Your task to perform on an android device: turn notification dots off Image 0: 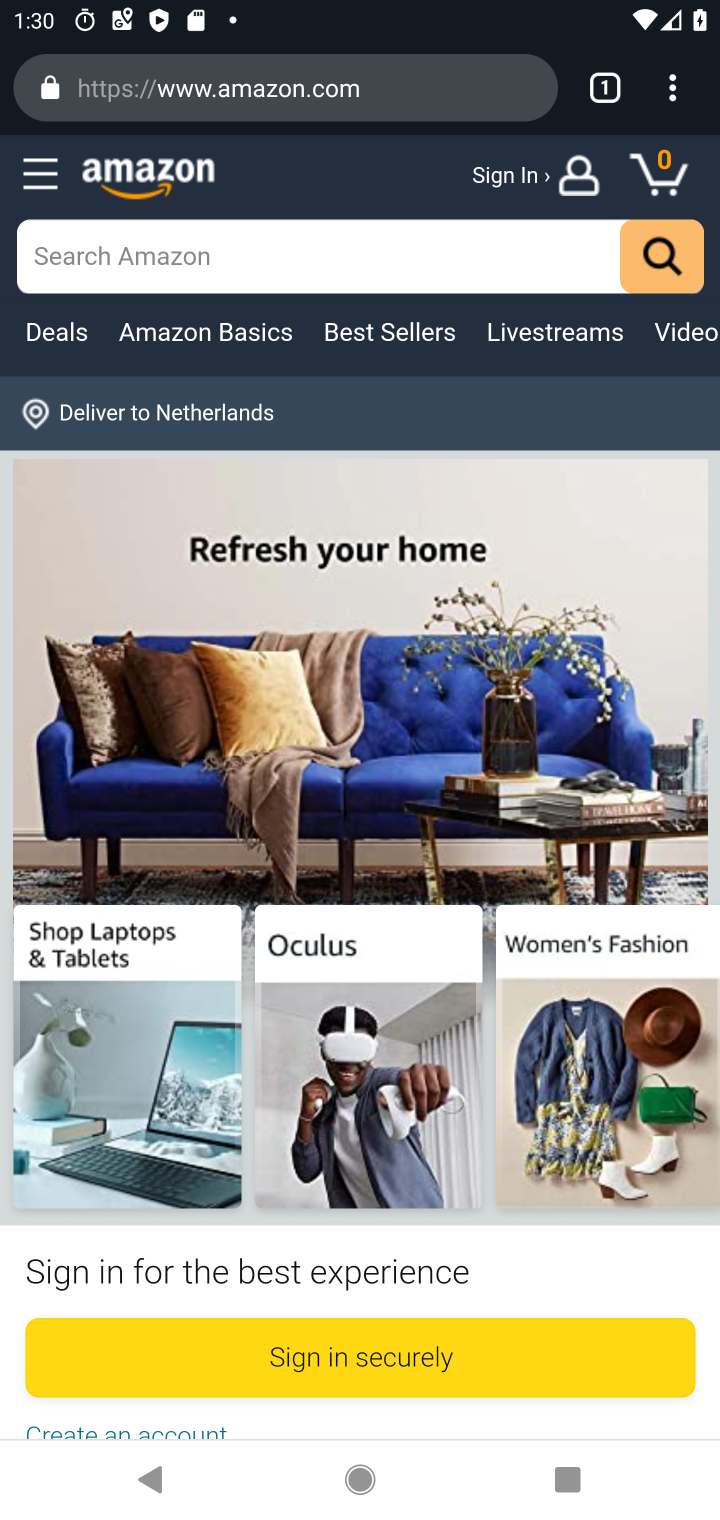
Step 0: press home button
Your task to perform on an android device: turn notification dots off Image 1: 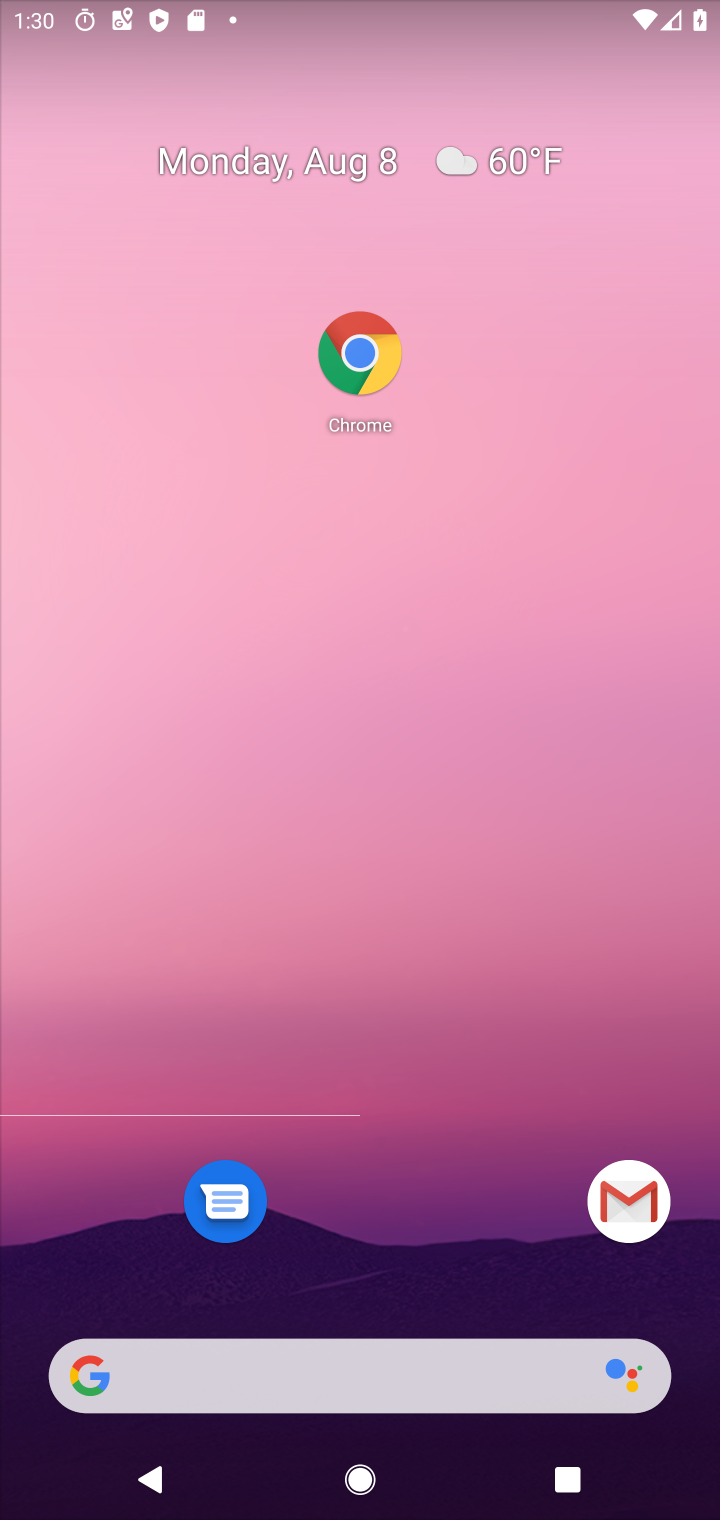
Step 1: drag from (421, 1394) to (401, 350)
Your task to perform on an android device: turn notification dots off Image 2: 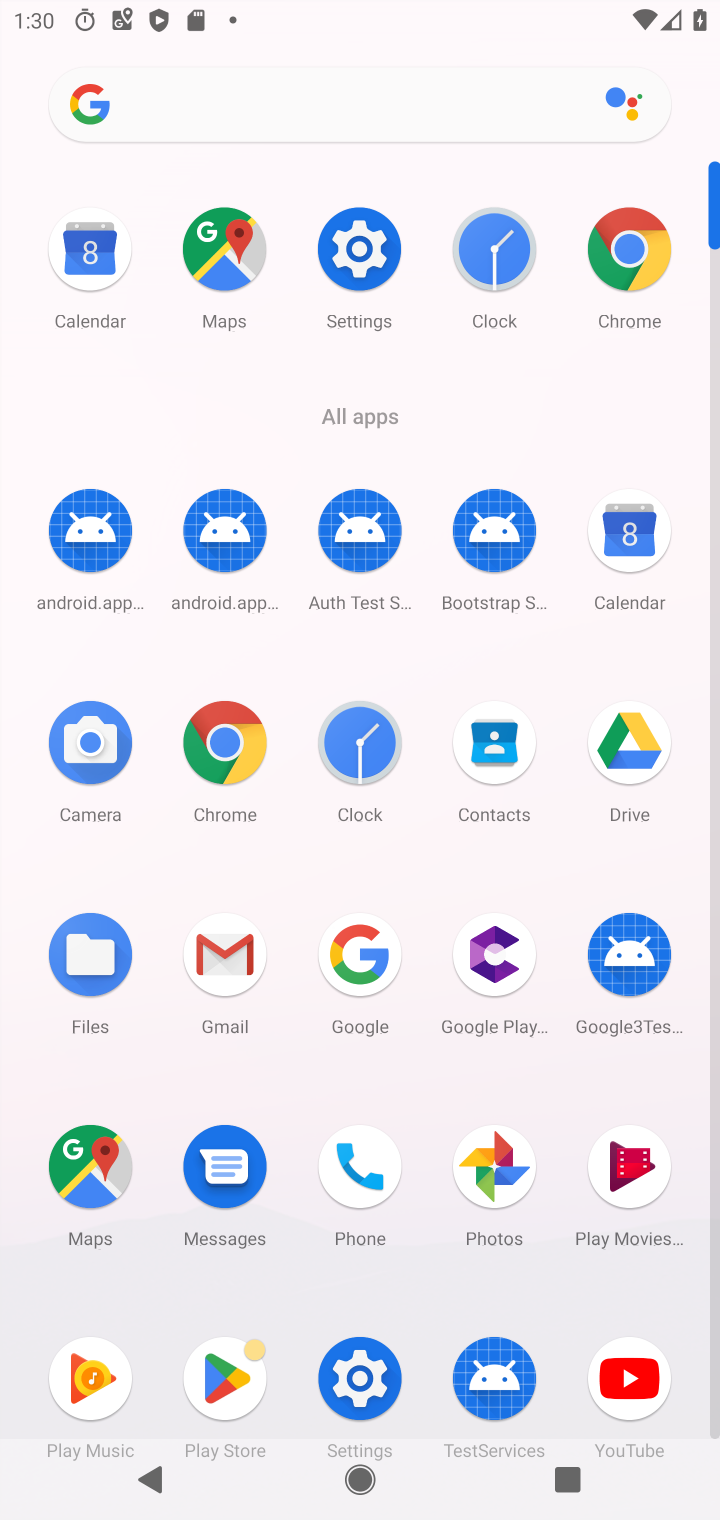
Step 2: click (363, 267)
Your task to perform on an android device: turn notification dots off Image 3: 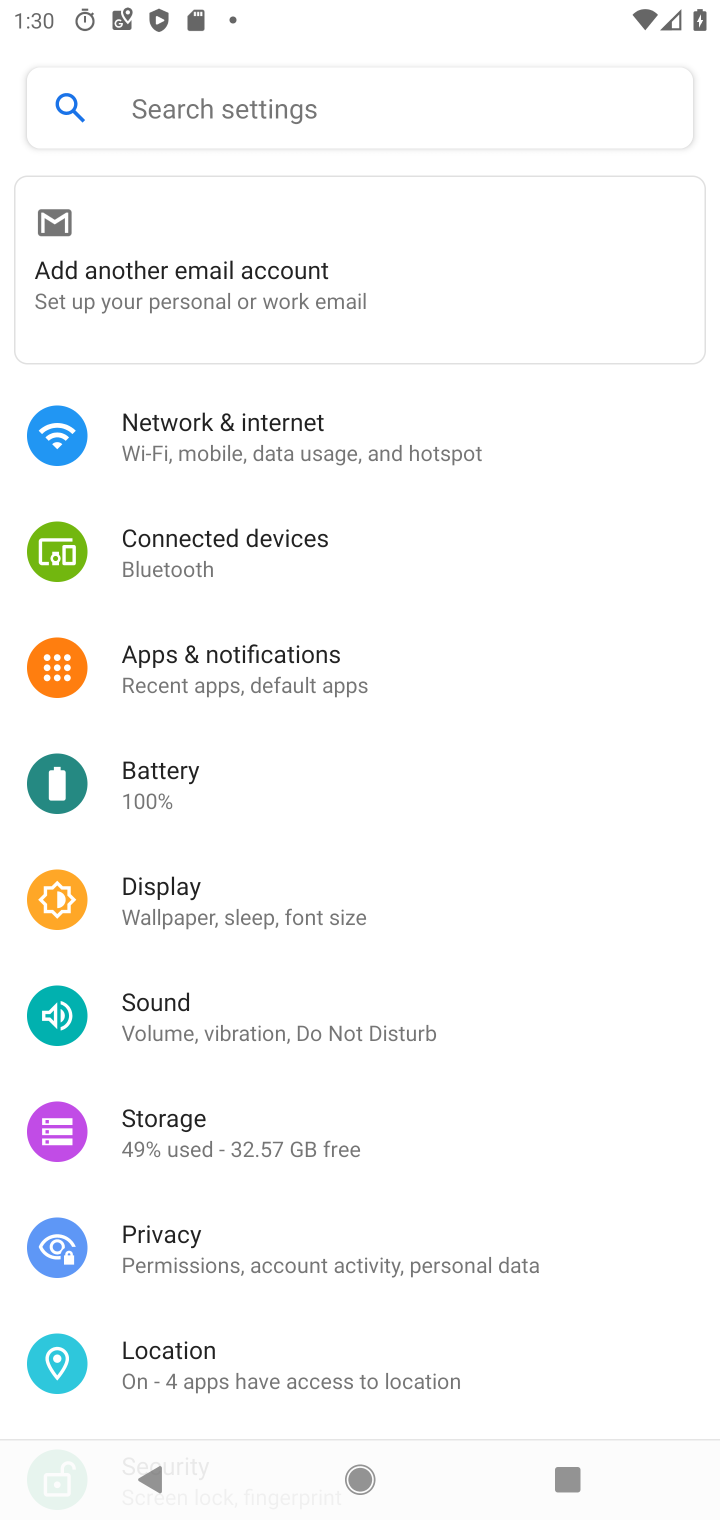
Step 3: click (292, 111)
Your task to perform on an android device: turn notification dots off Image 4: 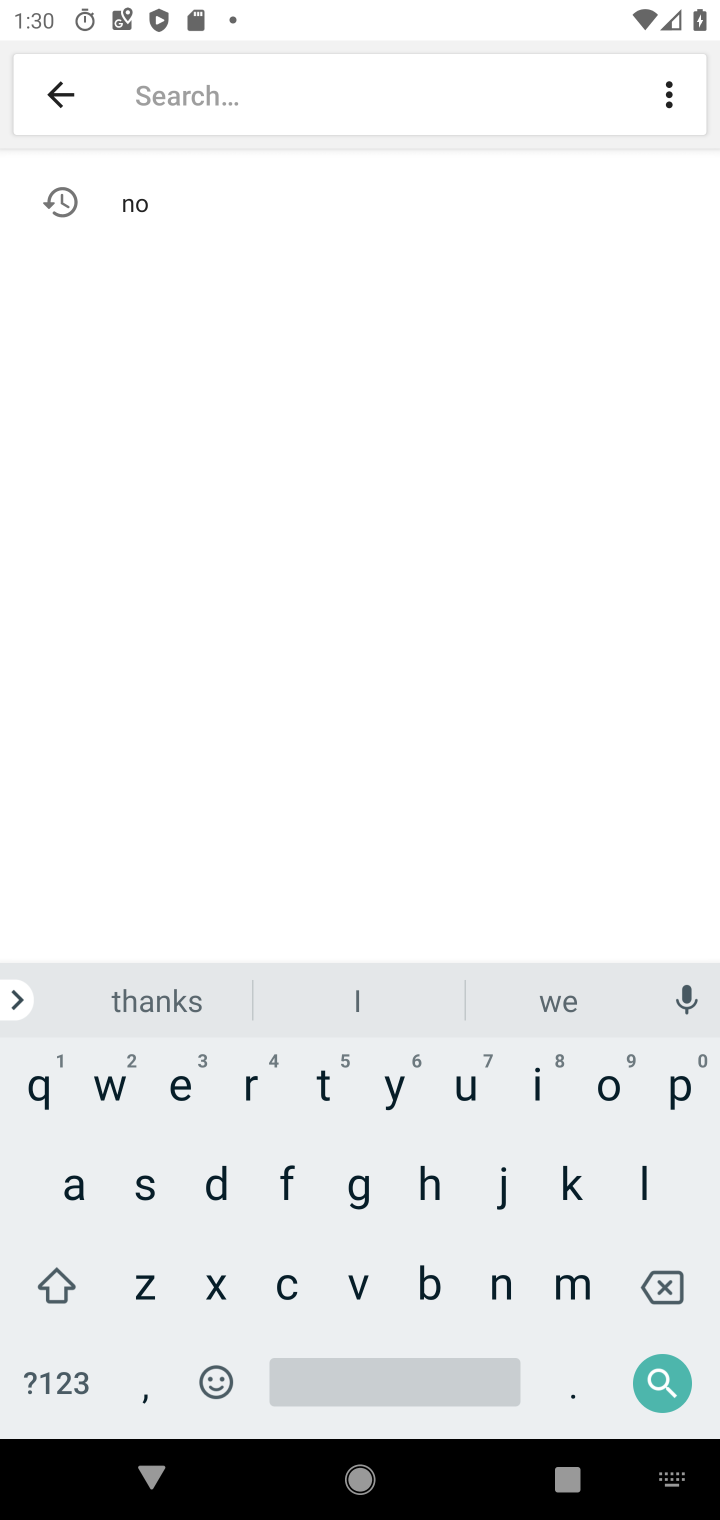
Step 4: click (156, 222)
Your task to perform on an android device: turn notification dots off Image 5: 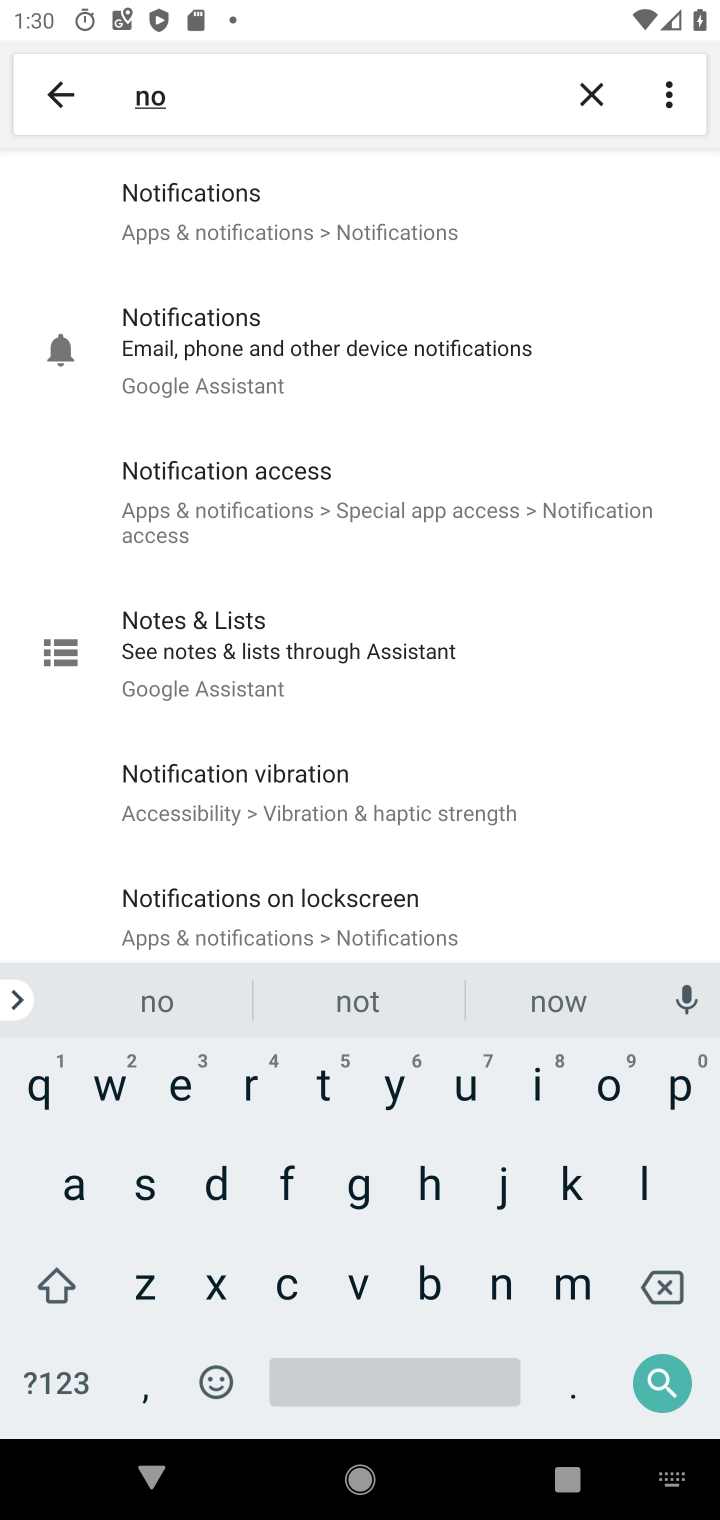
Step 5: click (273, 206)
Your task to perform on an android device: turn notification dots off Image 6: 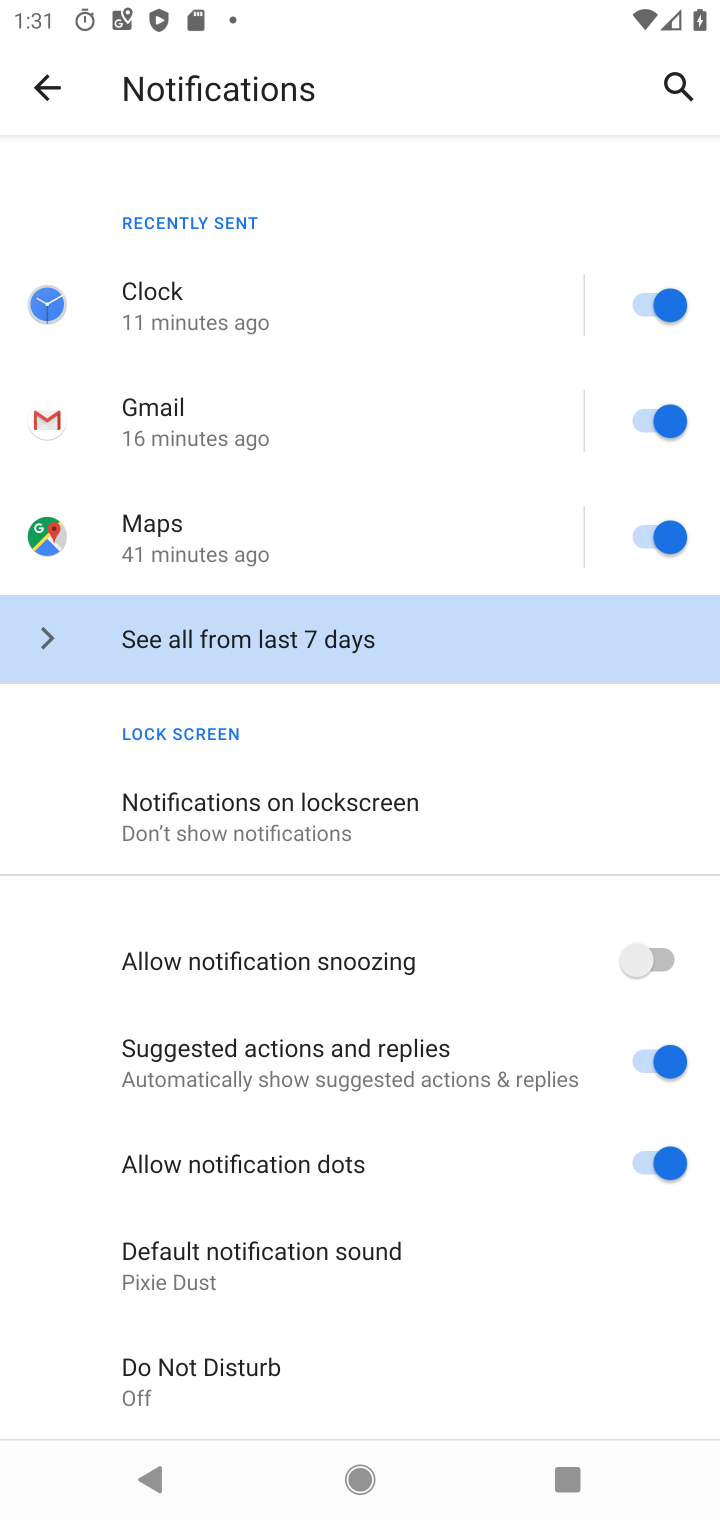
Step 6: click (642, 1150)
Your task to perform on an android device: turn notification dots off Image 7: 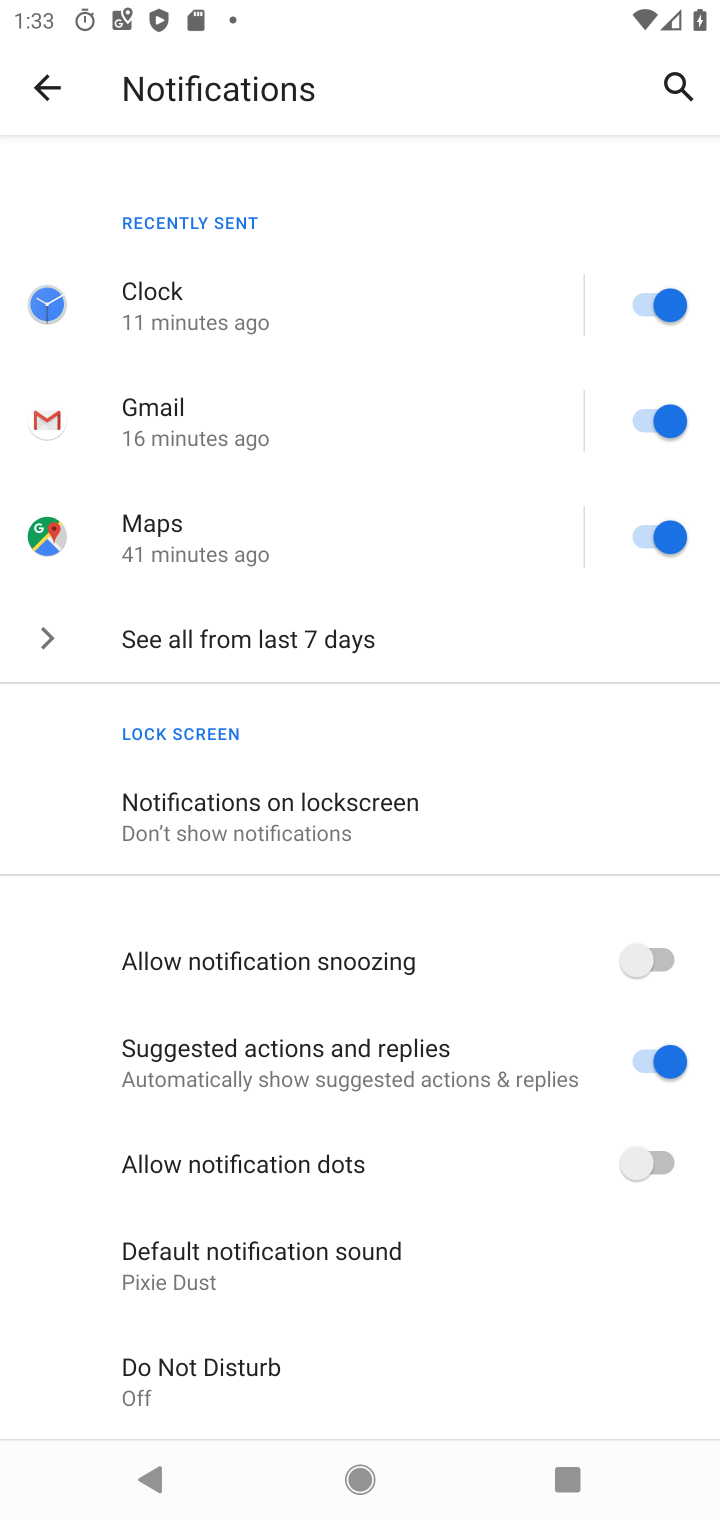
Step 7: task complete